Your task to perform on an android device: Go to notification settings Image 0: 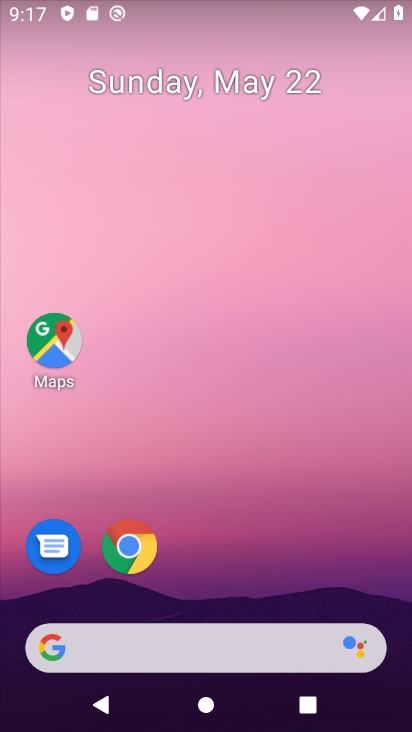
Step 0: drag from (210, 593) to (206, 185)
Your task to perform on an android device: Go to notification settings Image 1: 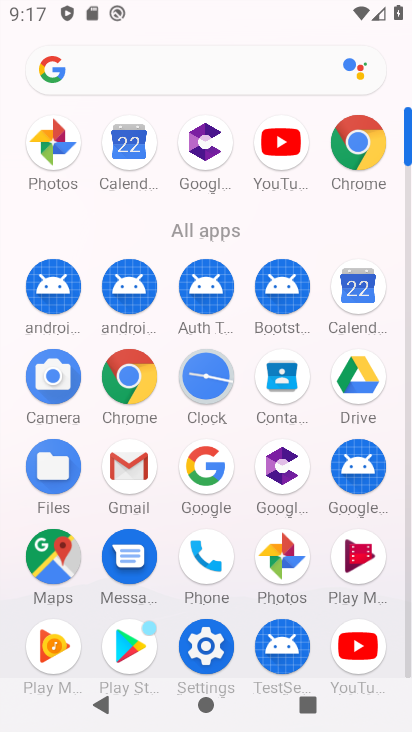
Step 1: click (210, 629)
Your task to perform on an android device: Go to notification settings Image 2: 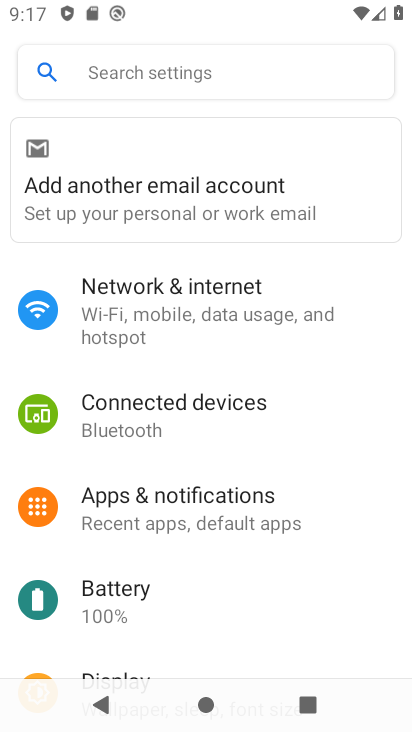
Step 2: click (249, 525)
Your task to perform on an android device: Go to notification settings Image 3: 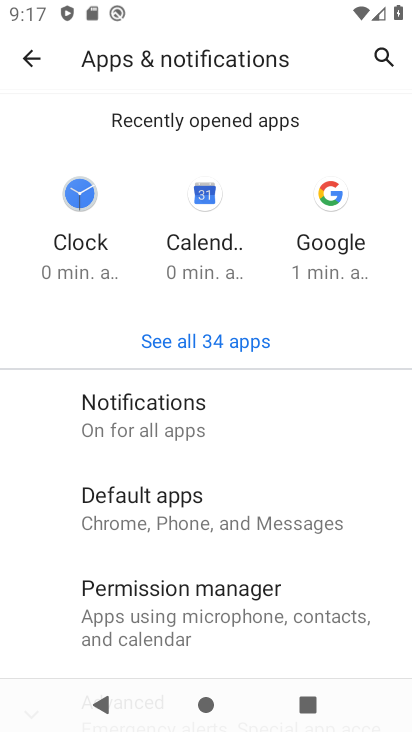
Step 3: click (253, 425)
Your task to perform on an android device: Go to notification settings Image 4: 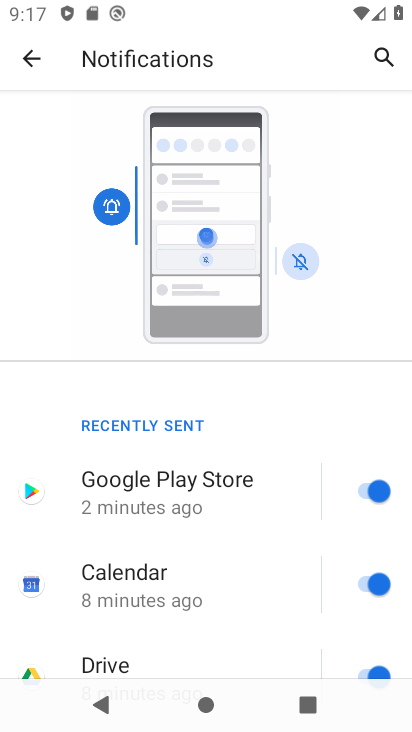
Step 4: task complete